Your task to perform on an android device: add a label to a message in the gmail app Image 0: 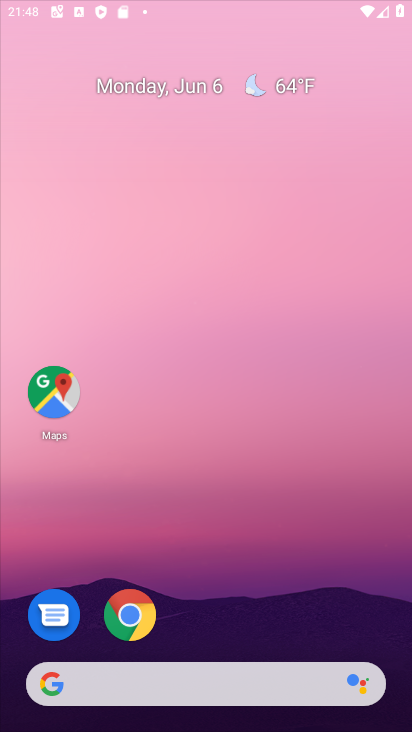
Step 0: click (132, 612)
Your task to perform on an android device: add a label to a message in the gmail app Image 1: 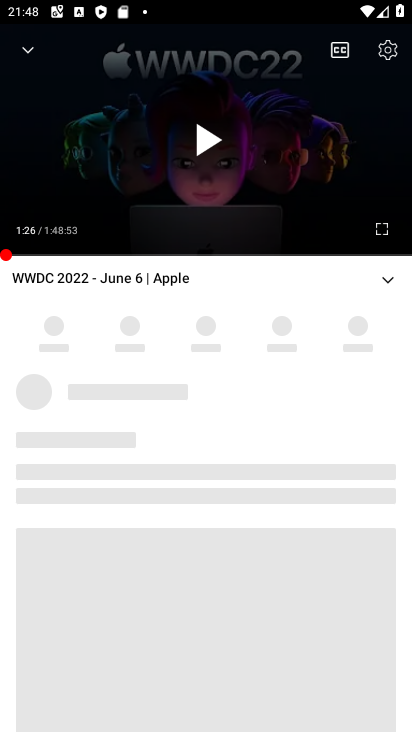
Step 1: press home button
Your task to perform on an android device: add a label to a message in the gmail app Image 2: 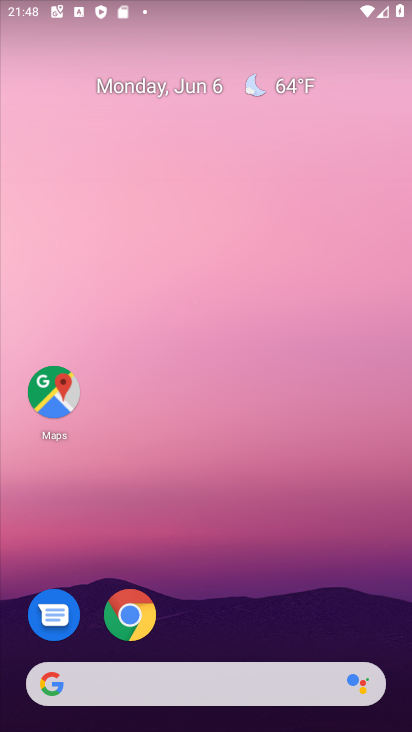
Step 2: drag from (398, 671) to (391, 96)
Your task to perform on an android device: add a label to a message in the gmail app Image 3: 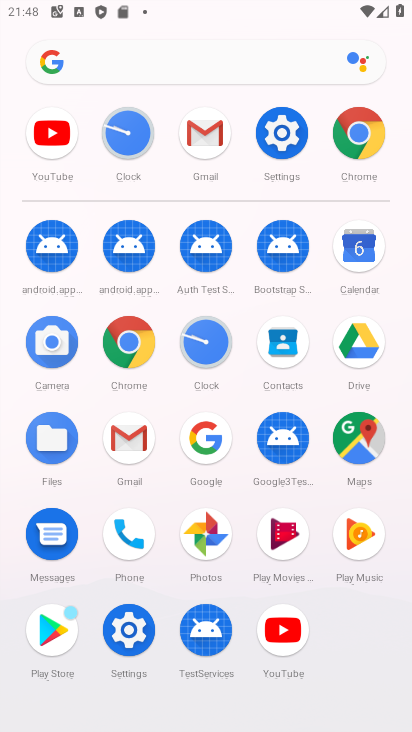
Step 3: click (123, 445)
Your task to perform on an android device: add a label to a message in the gmail app Image 4: 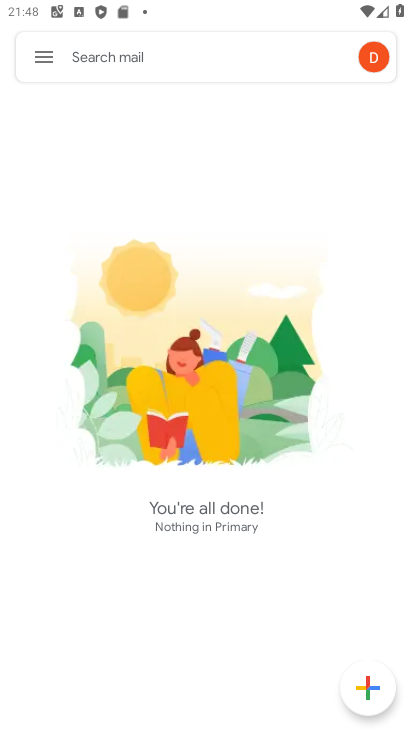
Step 4: click (37, 55)
Your task to perform on an android device: add a label to a message in the gmail app Image 5: 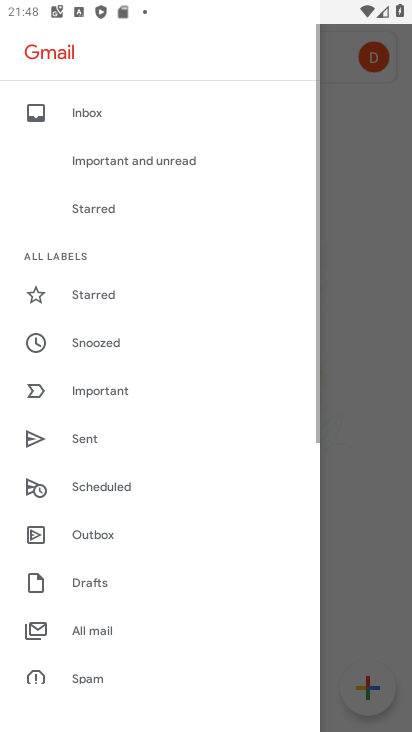
Step 5: click (73, 120)
Your task to perform on an android device: add a label to a message in the gmail app Image 6: 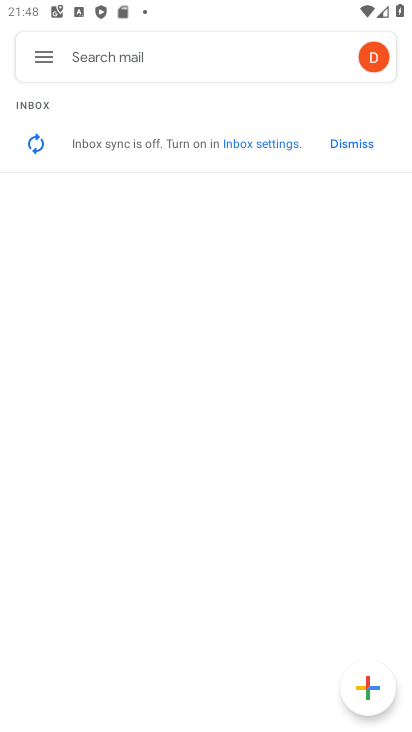
Step 6: task complete